Your task to perform on an android device: Open calendar and show me the second week of next month Image 0: 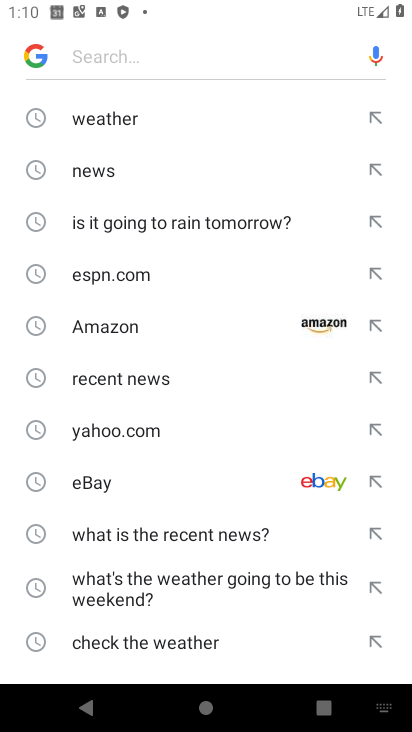
Step 0: press home button
Your task to perform on an android device: Open calendar and show me the second week of next month Image 1: 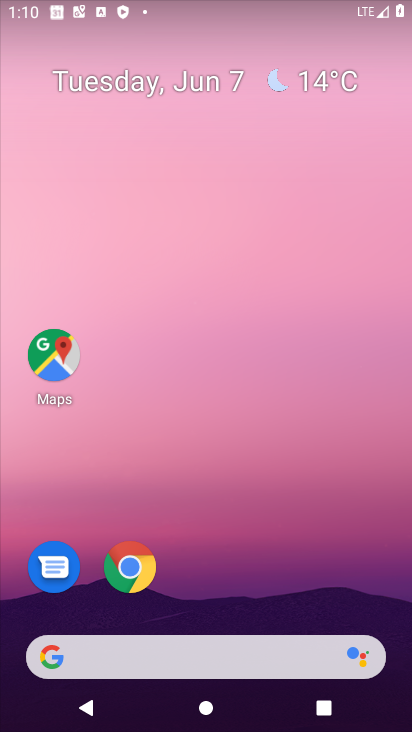
Step 1: drag from (181, 623) to (284, 180)
Your task to perform on an android device: Open calendar and show me the second week of next month Image 2: 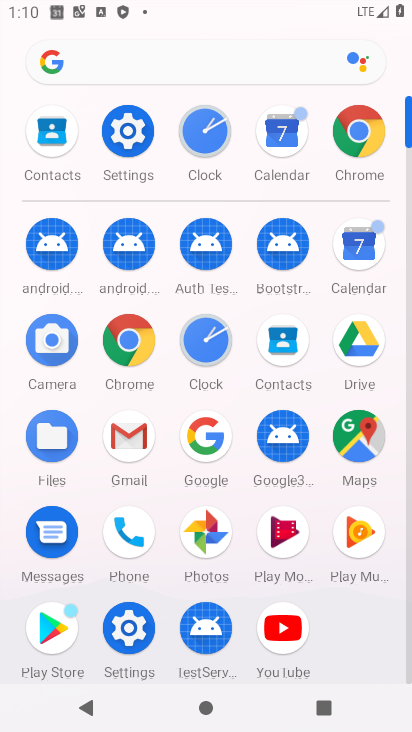
Step 2: click (350, 243)
Your task to perform on an android device: Open calendar and show me the second week of next month Image 3: 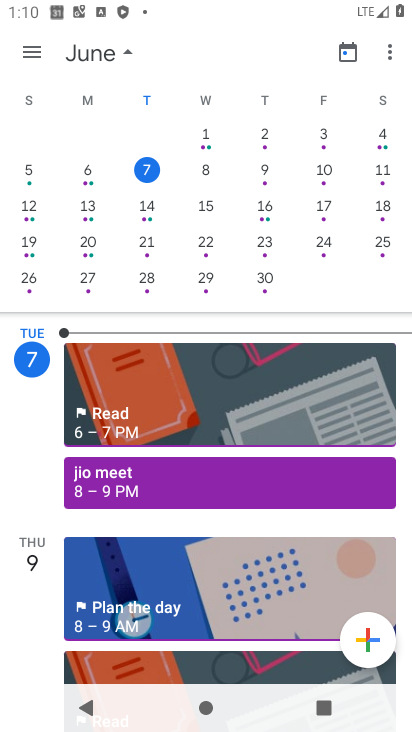
Step 3: drag from (384, 199) to (35, 216)
Your task to perform on an android device: Open calendar and show me the second week of next month Image 4: 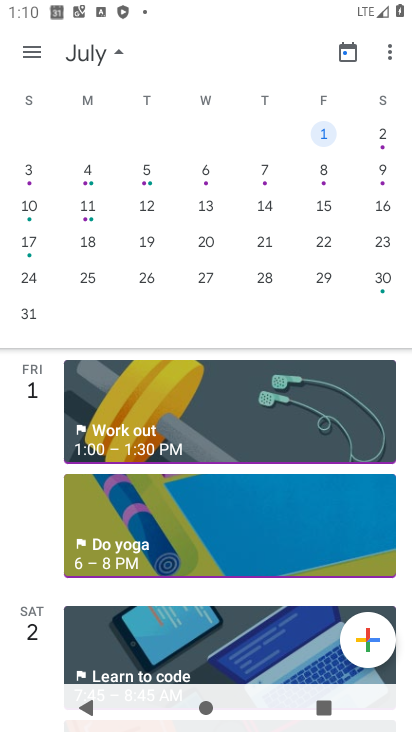
Step 4: click (260, 173)
Your task to perform on an android device: Open calendar and show me the second week of next month Image 5: 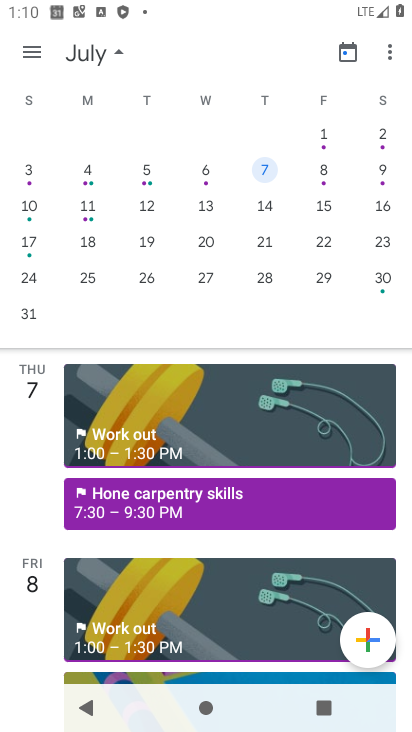
Step 5: click (37, 47)
Your task to perform on an android device: Open calendar and show me the second week of next month Image 6: 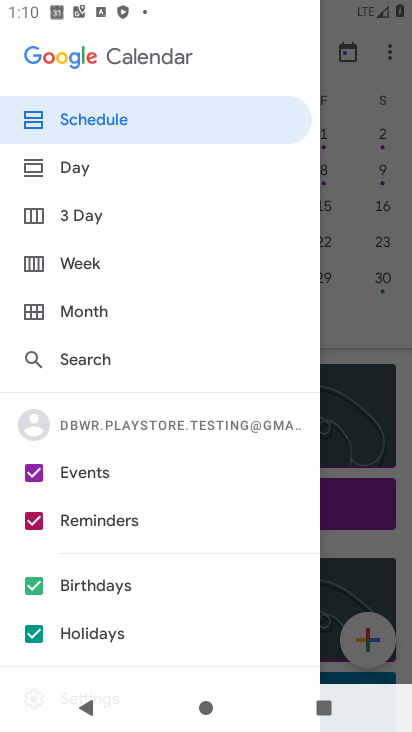
Step 6: click (89, 263)
Your task to perform on an android device: Open calendar and show me the second week of next month Image 7: 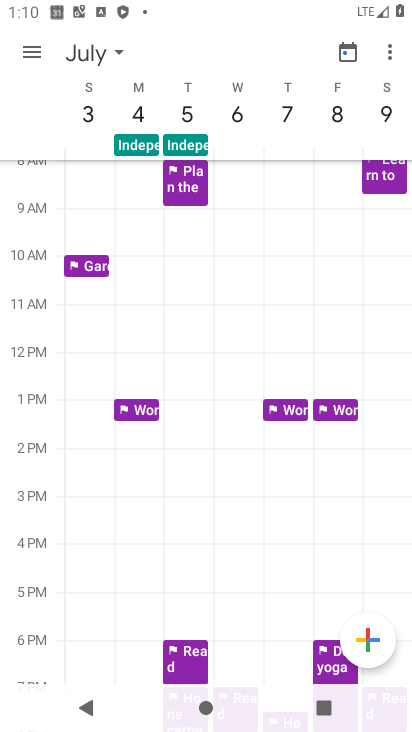
Step 7: task complete